Your task to perform on an android device: check android version Image 0: 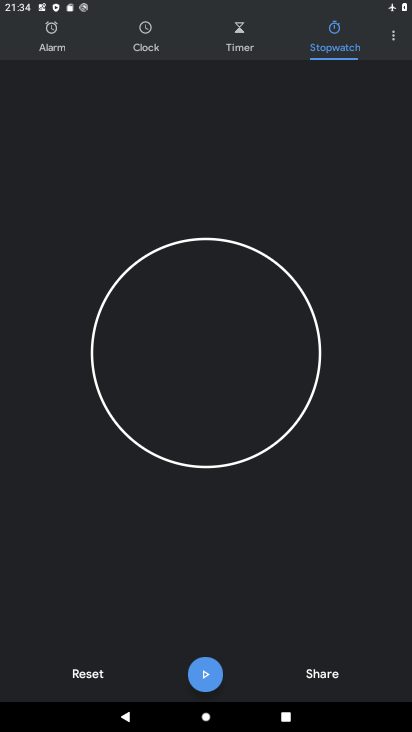
Step 0: press back button
Your task to perform on an android device: check android version Image 1: 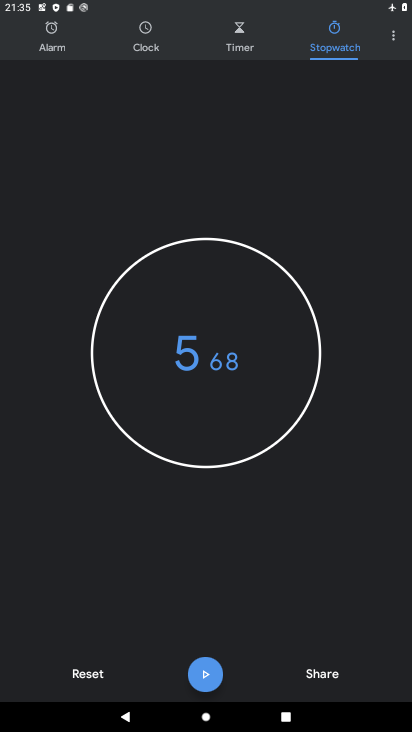
Step 1: press back button
Your task to perform on an android device: check android version Image 2: 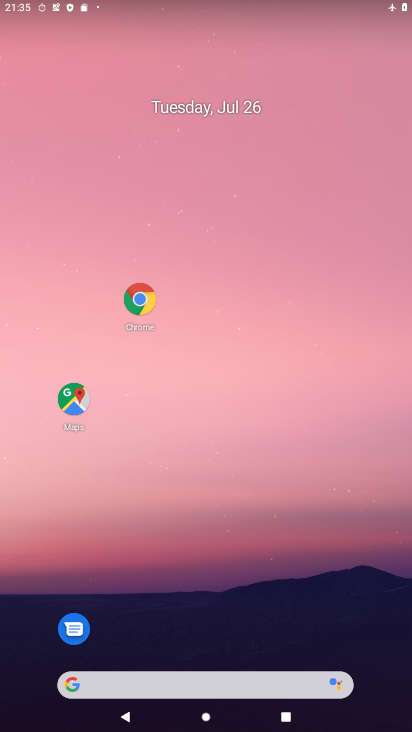
Step 2: drag from (176, 540) to (118, 209)
Your task to perform on an android device: check android version Image 3: 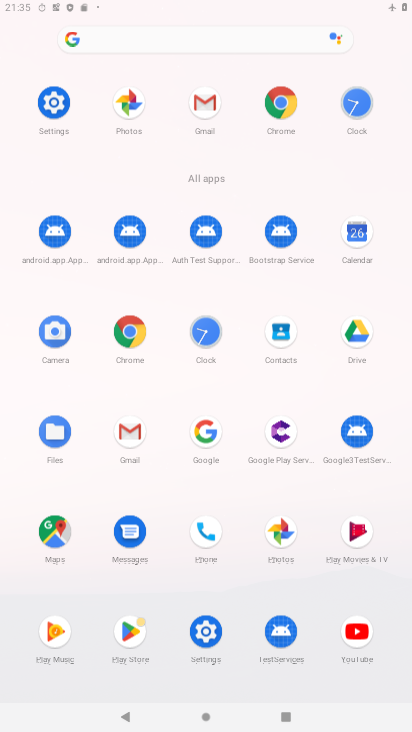
Step 3: drag from (239, 211) to (223, 8)
Your task to perform on an android device: check android version Image 4: 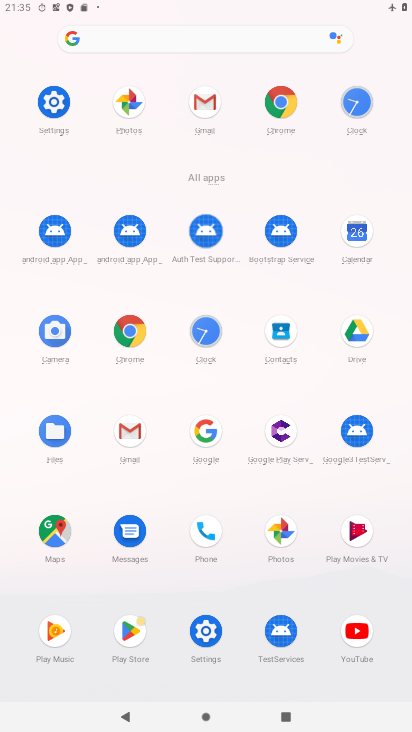
Step 4: drag from (250, 513) to (158, 103)
Your task to perform on an android device: check android version Image 5: 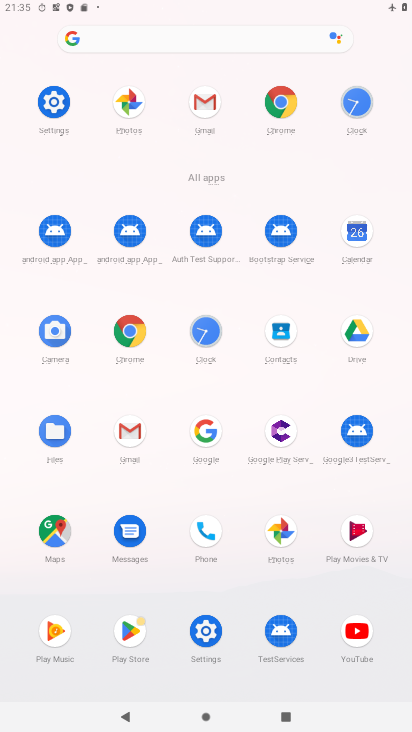
Step 5: click (46, 116)
Your task to perform on an android device: check android version Image 6: 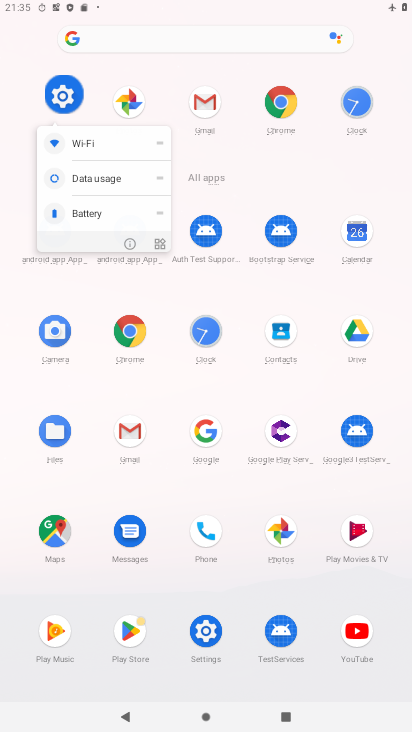
Step 6: click (55, 106)
Your task to perform on an android device: check android version Image 7: 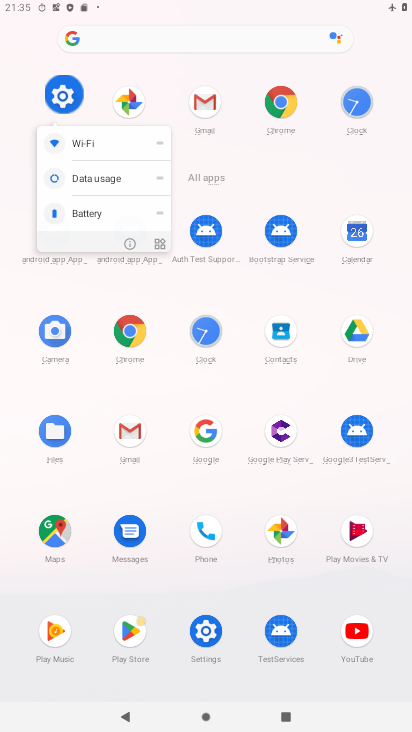
Step 7: click (56, 106)
Your task to perform on an android device: check android version Image 8: 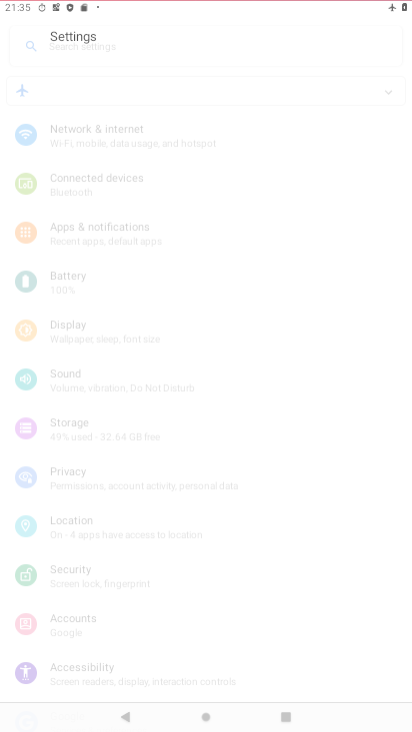
Step 8: click (65, 93)
Your task to perform on an android device: check android version Image 9: 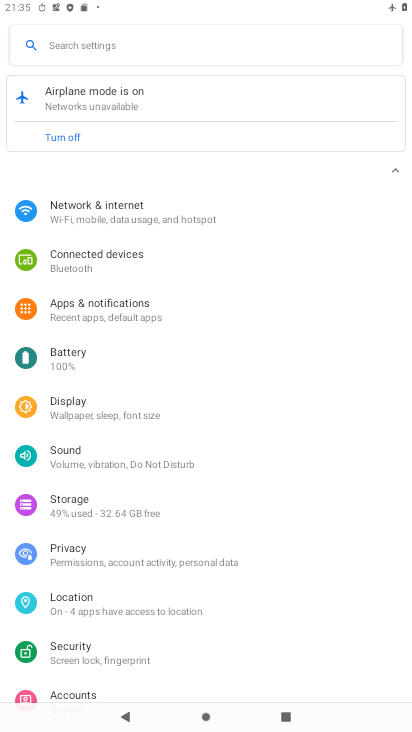
Step 9: drag from (124, 362) to (73, 151)
Your task to perform on an android device: check android version Image 10: 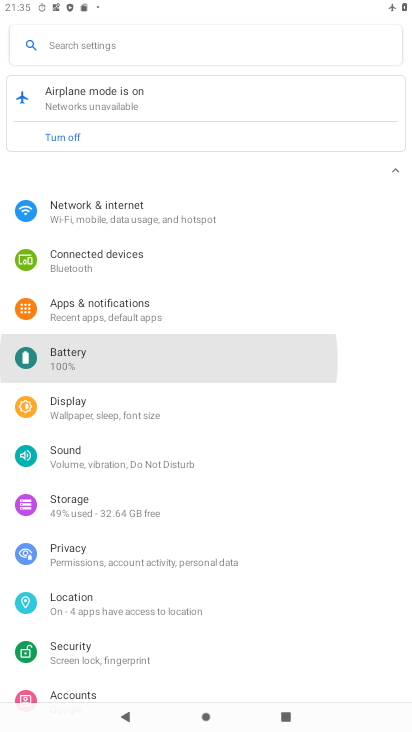
Step 10: drag from (159, 426) to (113, 189)
Your task to perform on an android device: check android version Image 11: 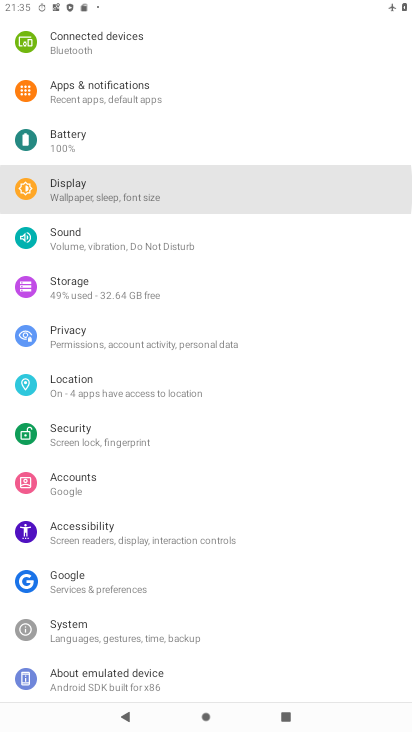
Step 11: drag from (177, 369) to (129, 146)
Your task to perform on an android device: check android version Image 12: 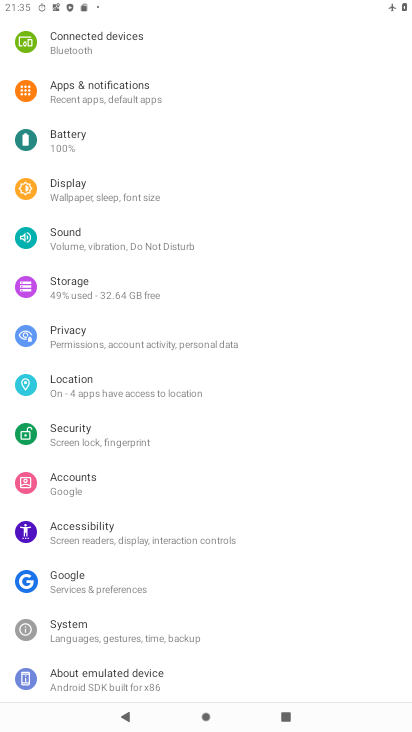
Step 12: drag from (102, 284) to (66, 35)
Your task to perform on an android device: check android version Image 13: 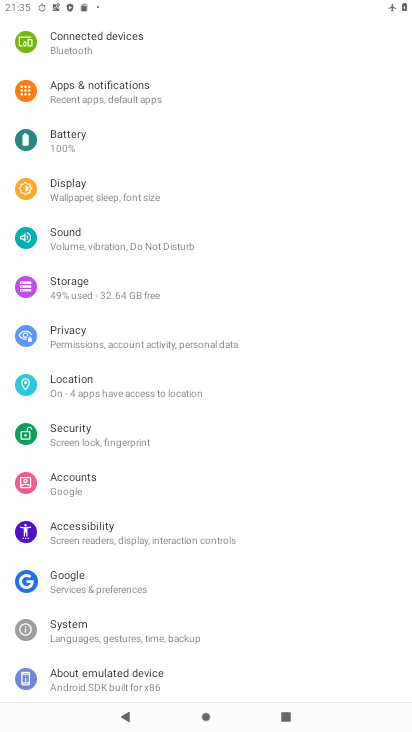
Step 13: click (91, 683)
Your task to perform on an android device: check android version Image 14: 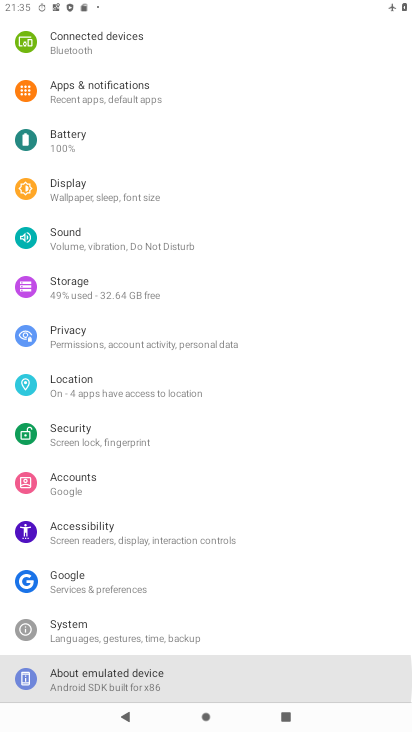
Step 14: click (99, 670)
Your task to perform on an android device: check android version Image 15: 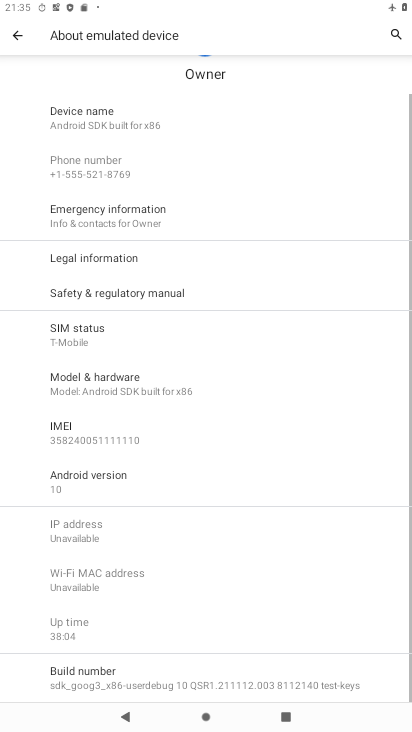
Step 15: drag from (134, 460) to (118, 44)
Your task to perform on an android device: check android version Image 16: 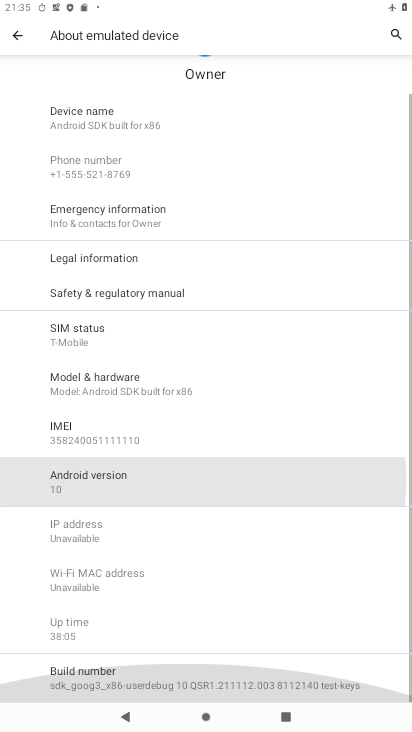
Step 16: click (184, 52)
Your task to perform on an android device: check android version Image 17: 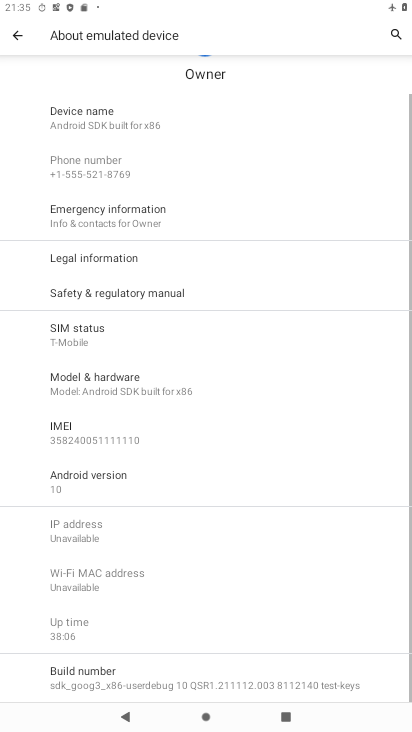
Step 17: task complete